Your task to perform on an android device: Go to Amazon Image 0: 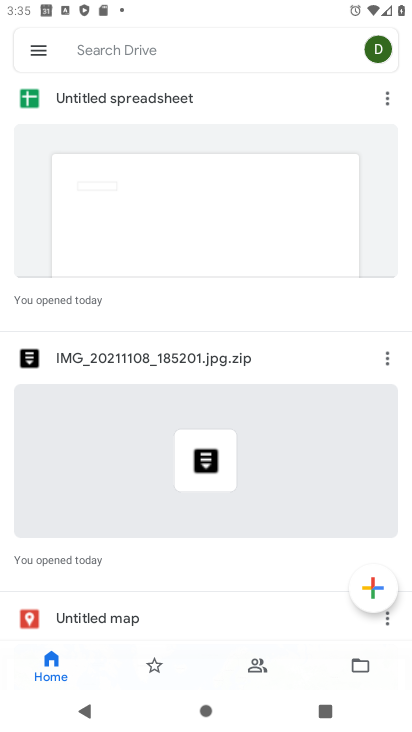
Step 0: press home button
Your task to perform on an android device: Go to Amazon Image 1: 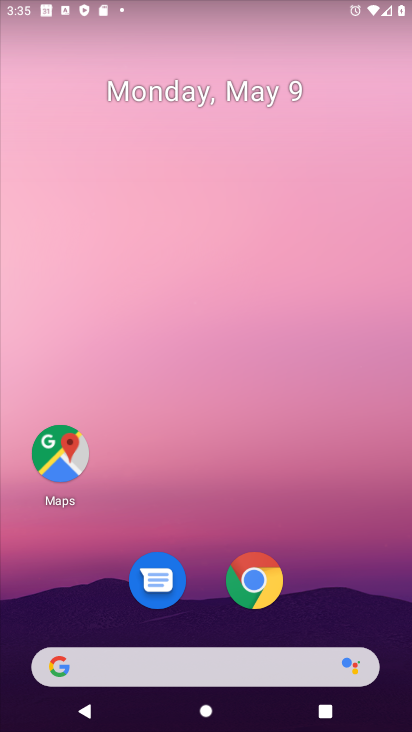
Step 1: click (258, 585)
Your task to perform on an android device: Go to Amazon Image 2: 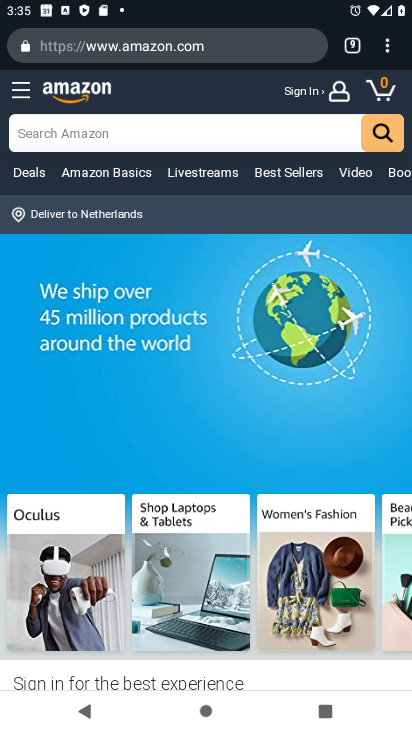
Step 2: task complete